Your task to perform on an android device: toggle wifi Image 0: 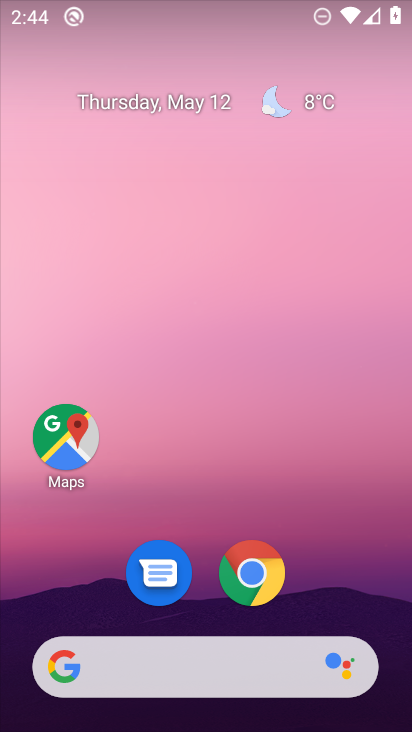
Step 0: drag from (384, 654) to (206, 110)
Your task to perform on an android device: toggle wifi Image 1: 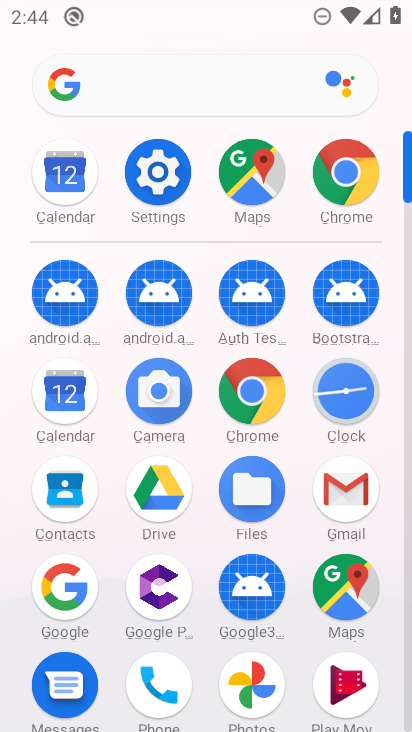
Step 1: click (156, 181)
Your task to perform on an android device: toggle wifi Image 2: 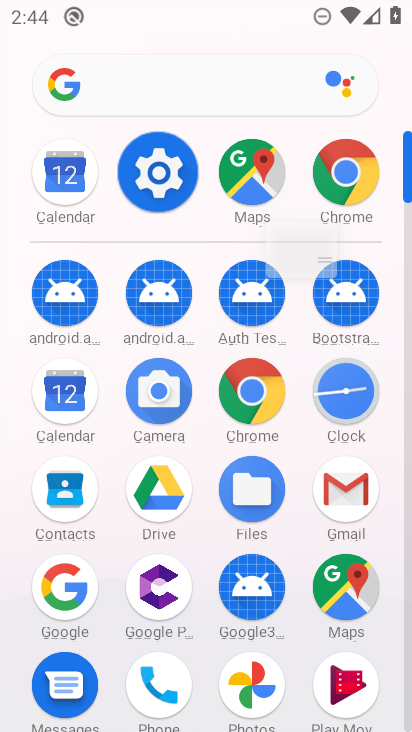
Step 2: click (155, 174)
Your task to perform on an android device: toggle wifi Image 3: 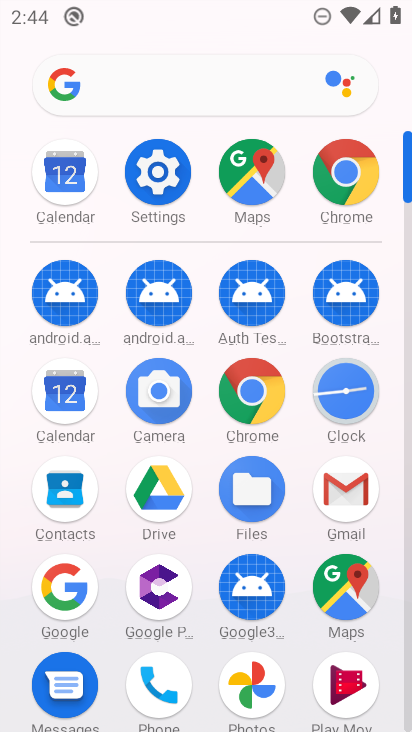
Step 3: click (155, 174)
Your task to perform on an android device: toggle wifi Image 4: 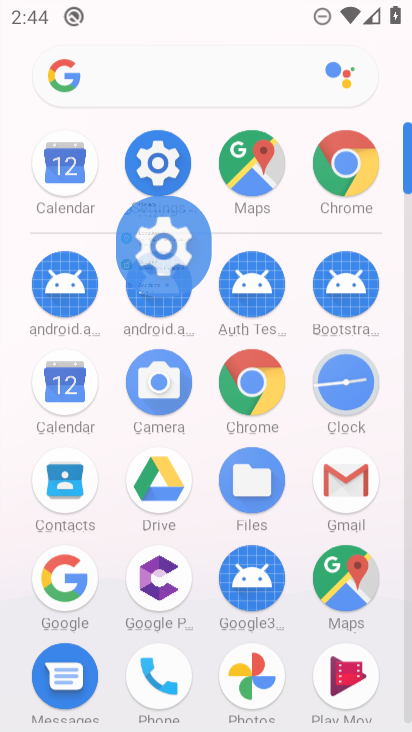
Step 4: click (155, 174)
Your task to perform on an android device: toggle wifi Image 5: 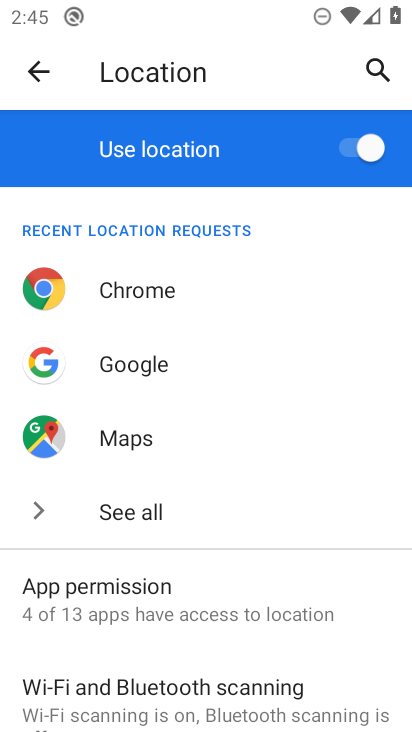
Step 5: click (26, 71)
Your task to perform on an android device: toggle wifi Image 6: 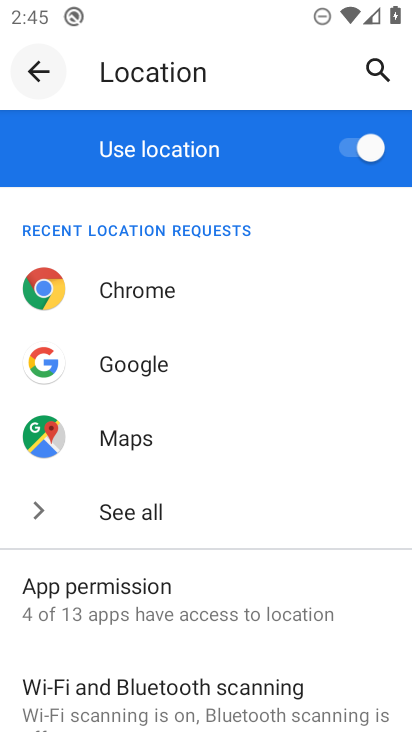
Step 6: click (40, 71)
Your task to perform on an android device: toggle wifi Image 7: 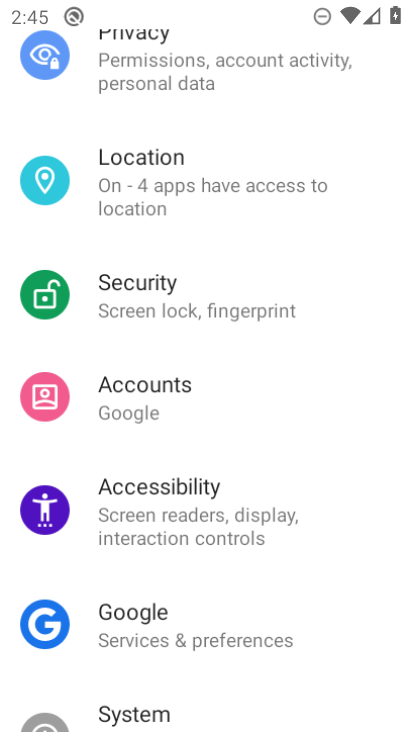
Step 7: click (44, 73)
Your task to perform on an android device: toggle wifi Image 8: 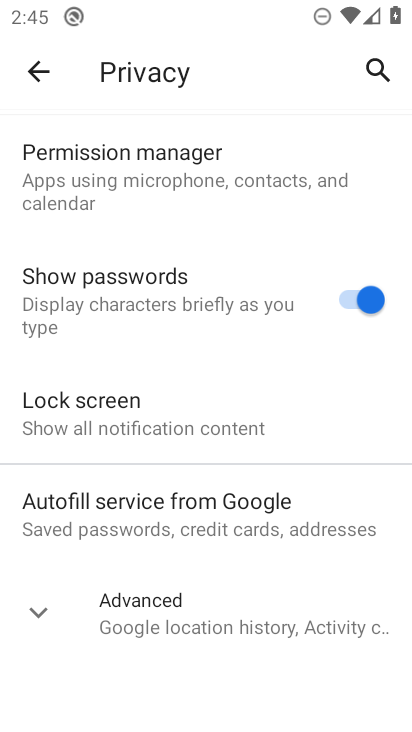
Step 8: click (28, 73)
Your task to perform on an android device: toggle wifi Image 9: 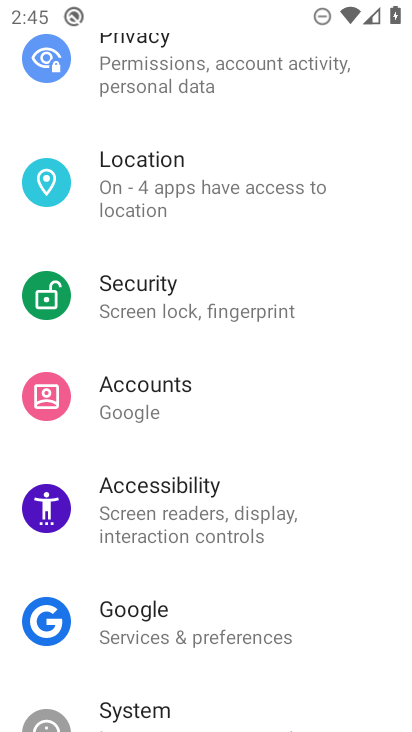
Step 9: drag from (144, 200) to (232, 585)
Your task to perform on an android device: toggle wifi Image 10: 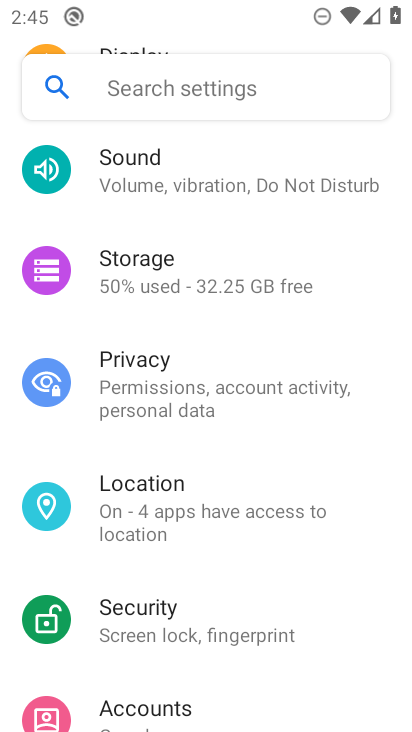
Step 10: drag from (229, 268) to (290, 508)
Your task to perform on an android device: toggle wifi Image 11: 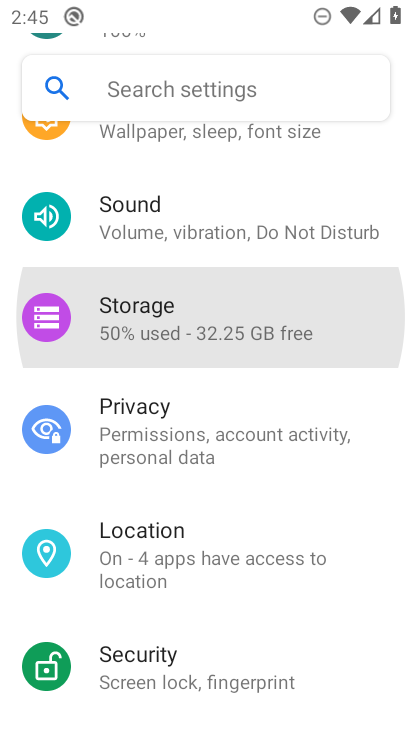
Step 11: drag from (290, 243) to (327, 650)
Your task to perform on an android device: toggle wifi Image 12: 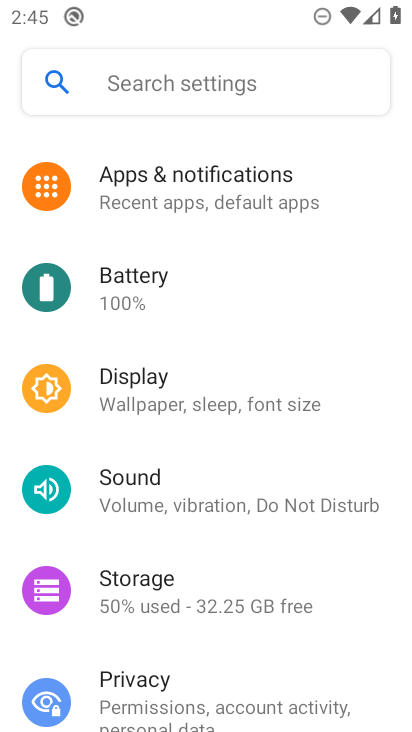
Step 12: drag from (205, 281) to (247, 664)
Your task to perform on an android device: toggle wifi Image 13: 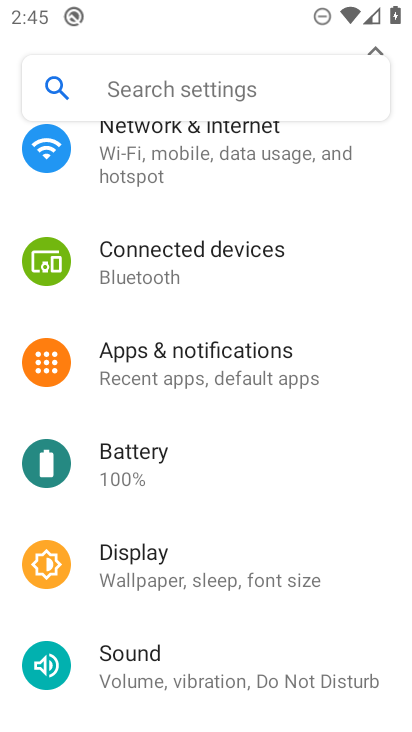
Step 13: drag from (253, 319) to (271, 667)
Your task to perform on an android device: toggle wifi Image 14: 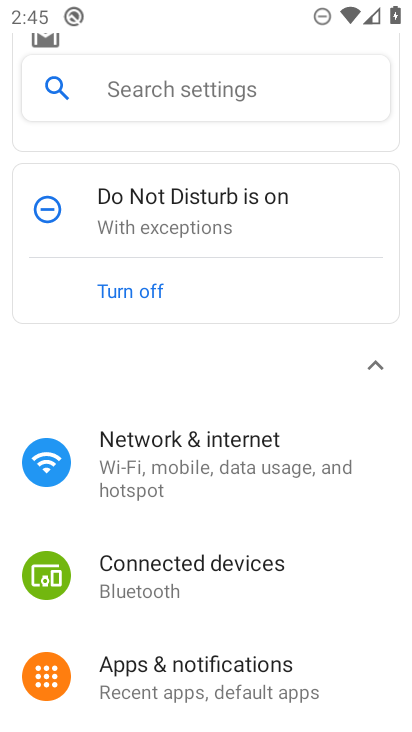
Step 14: click (206, 456)
Your task to perform on an android device: toggle wifi Image 15: 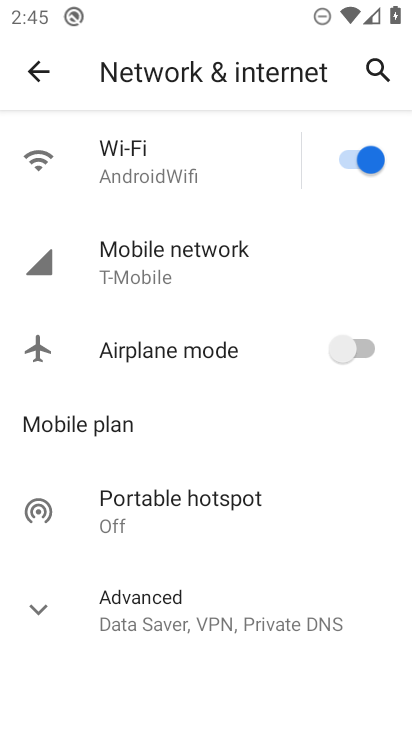
Step 15: click (374, 149)
Your task to perform on an android device: toggle wifi Image 16: 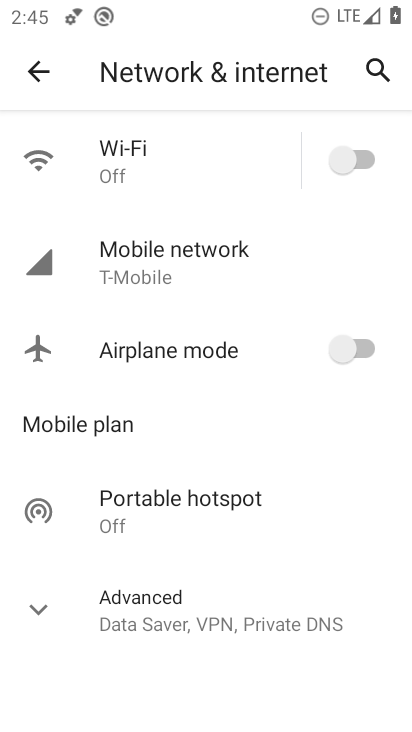
Step 16: task complete